Your task to perform on an android device: Open maps Image 0: 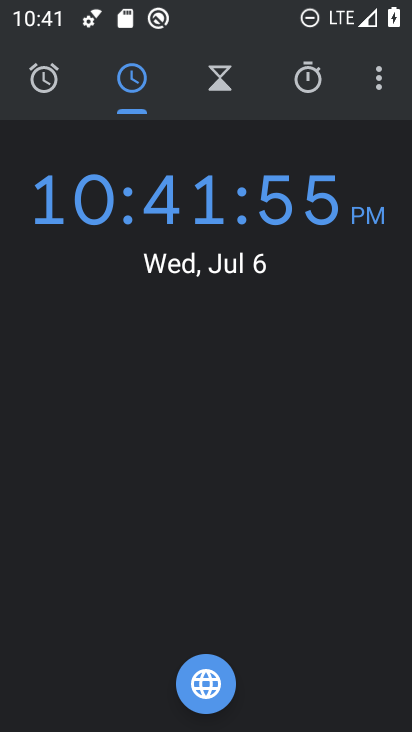
Step 0: press home button
Your task to perform on an android device: Open maps Image 1: 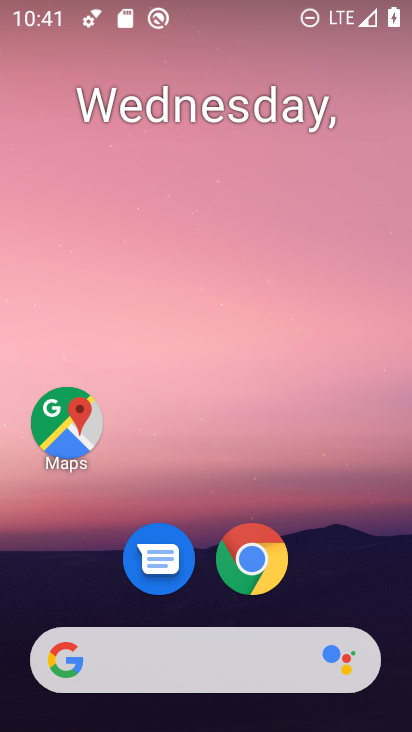
Step 1: drag from (373, 564) to (377, 155)
Your task to perform on an android device: Open maps Image 2: 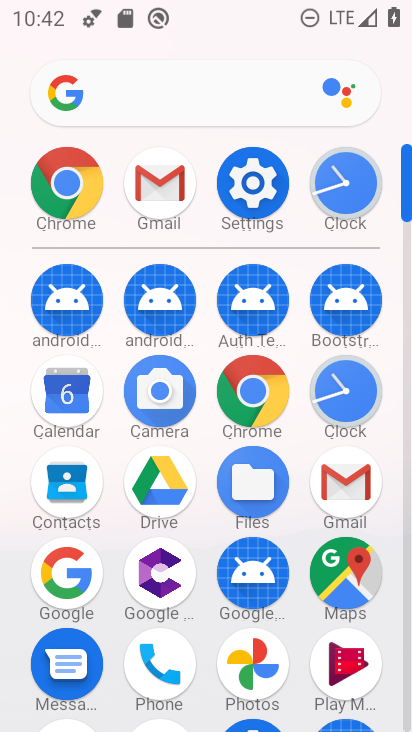
Step 2: click (347, 564)
Your task to perform on an android device: Open maps Image 3: 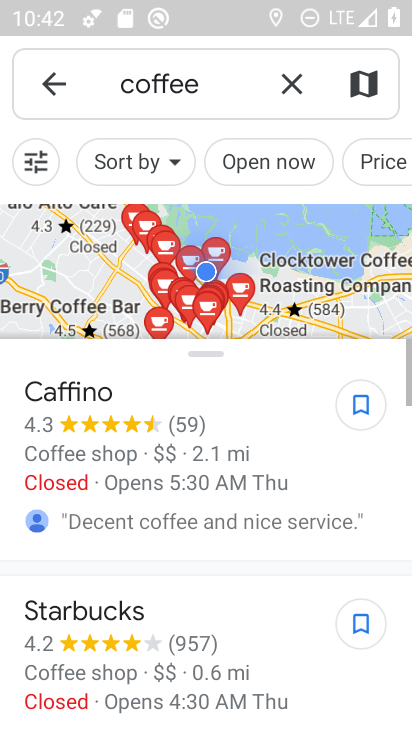
Step 3: task complete